Your task to perform on an android device: Go to Google Image 0: 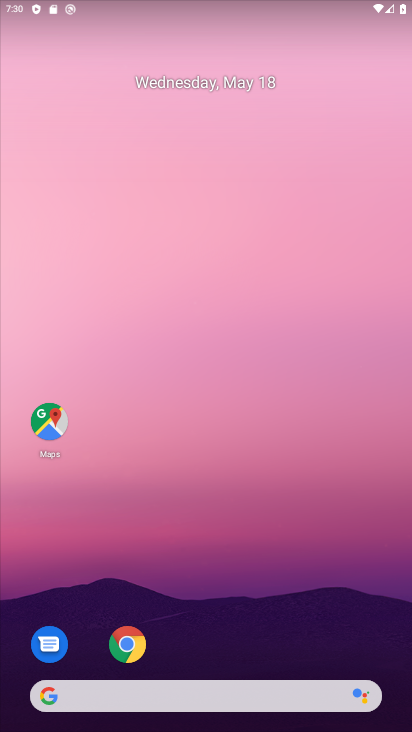
Step 0: press home button
Your task to perform on an android device: Go to Google Image 1: 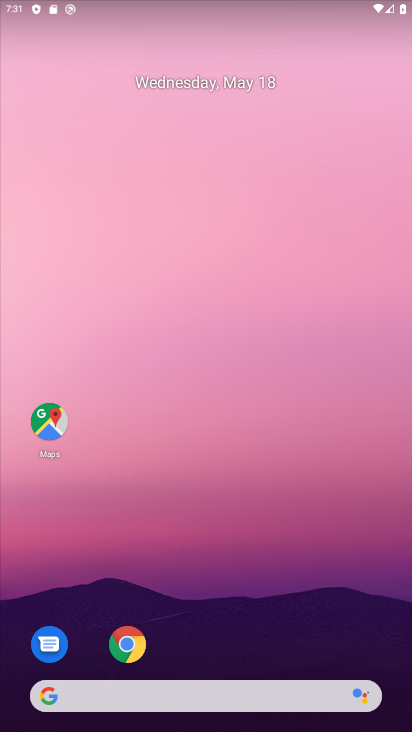
Step 1: drag from (272, 711) to (247, 224)
Your task to perform on an android device: Go to Google Image 2: 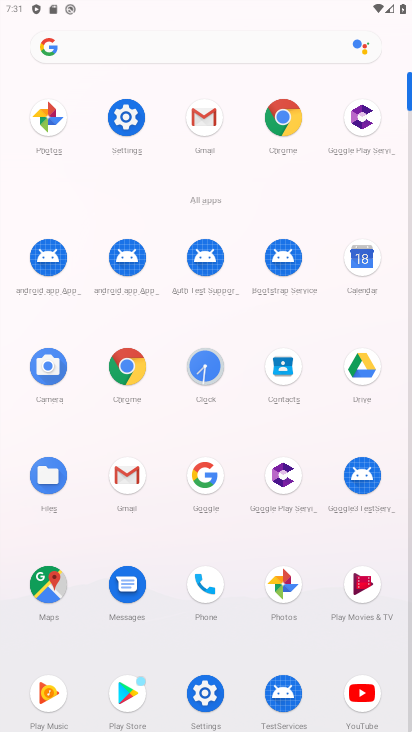
Step 2: click (34, 53)
Your task to perform on an android device: Go to Google Image 3: 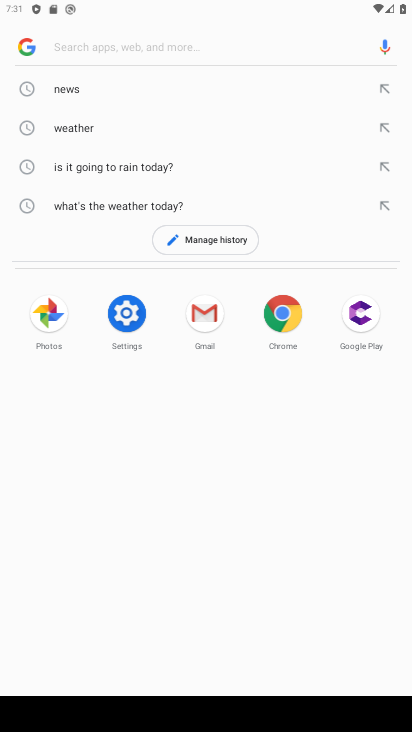
Step 3: click (25, 38)
Your task to perform on an android device: Go to Google Image 4: 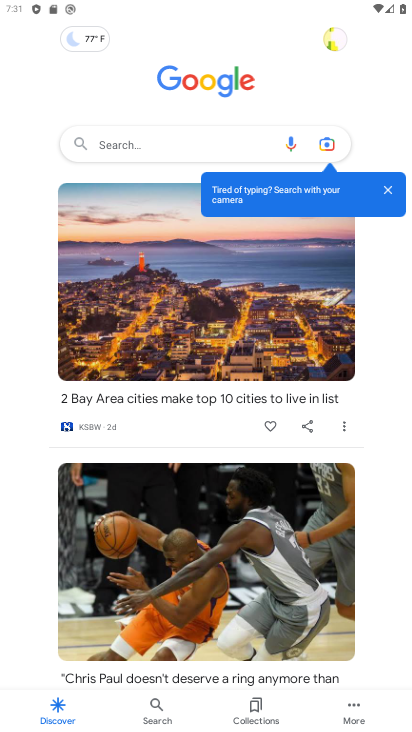
Step 4: task complete